Your task to perform on an android device: Is it going to rain tomorrow? Image 0: 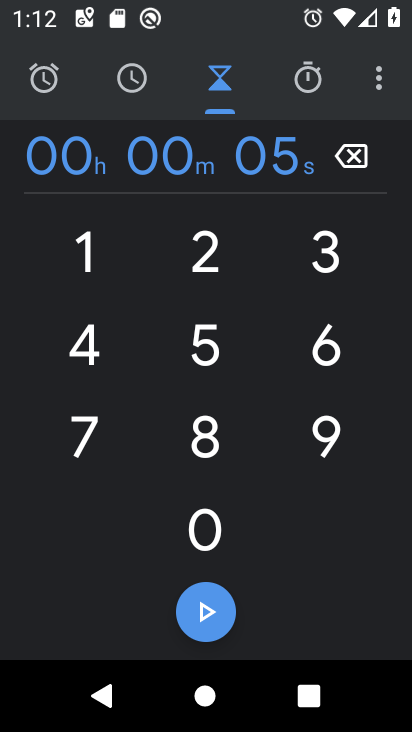
Step 0: press home button
Your task to perform on an android device: Is it going to rain tomorrow? Image 1: 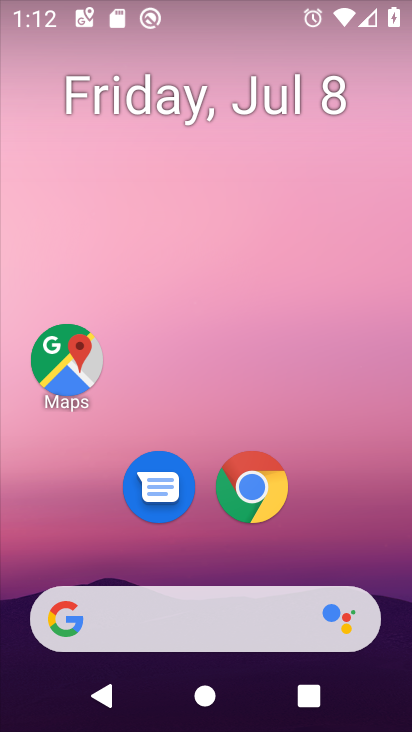
Step 1: click (197, 621)
Your task to perform on an android device: Is it going to rain tomorrow? Image 2: 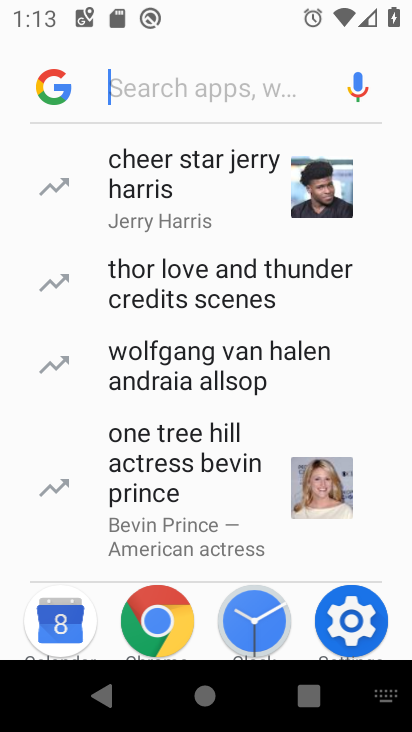
Step 2: type "weather "
Your task to perform on an android device: Is it going to rain tomorrow? Image 3: 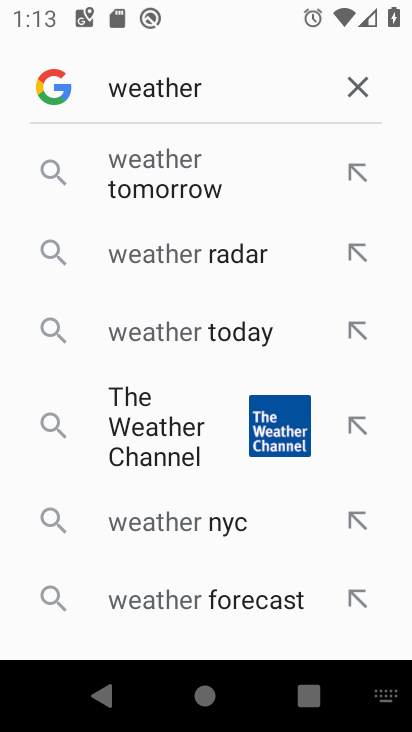
Step 3: click (195, 168)
Your task to perform on an android device: Is it going to rain tomorrow? Image 4: 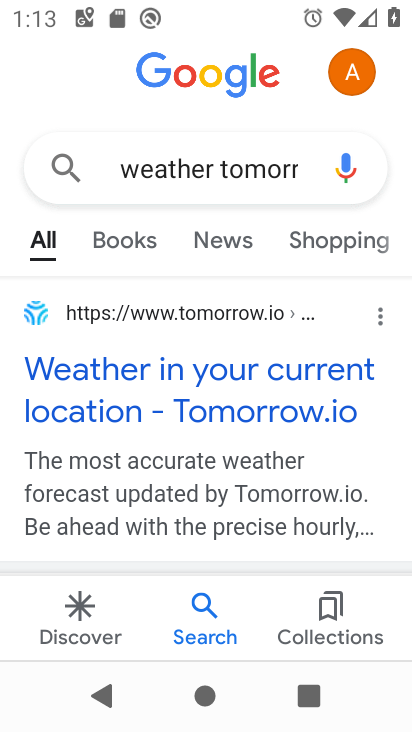
Step 4: task complete